Your task to perform on an android device: toggle notifications settings in the gmail app Image 0: 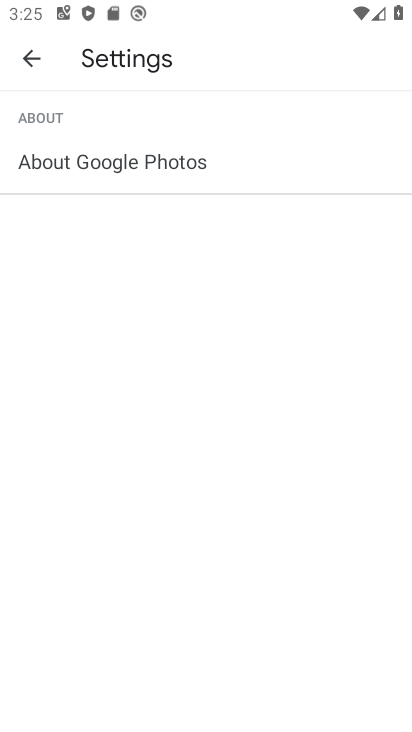
Step 0: press home button
Your task to perform on an android device: toggle notifications settings in the gmail app Image 1: 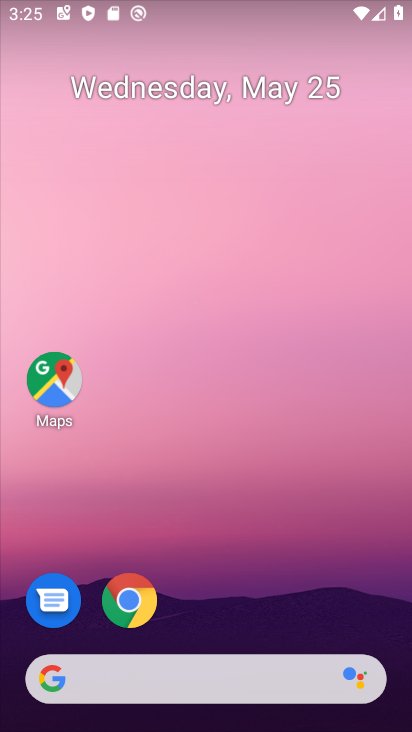
Step 1: drag from (27, 616) to (253, 192)
Your task to perform on an android device: toggle notifications settings in the gmail app Image 2: 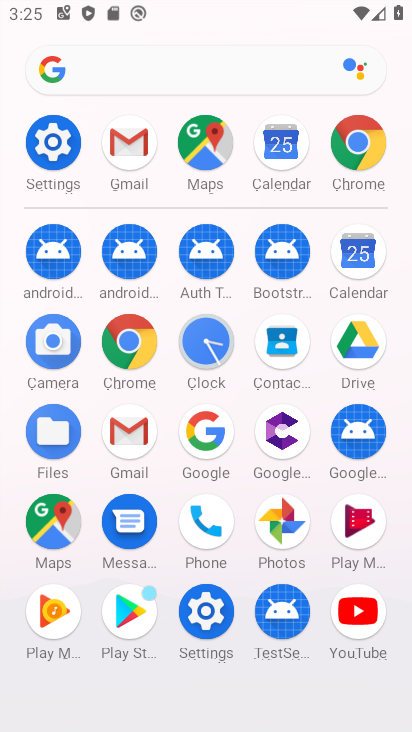
Step 2: click (129, 143)
Your task to perform on an android device: toggle notifications settings in the gmail app Image 3: 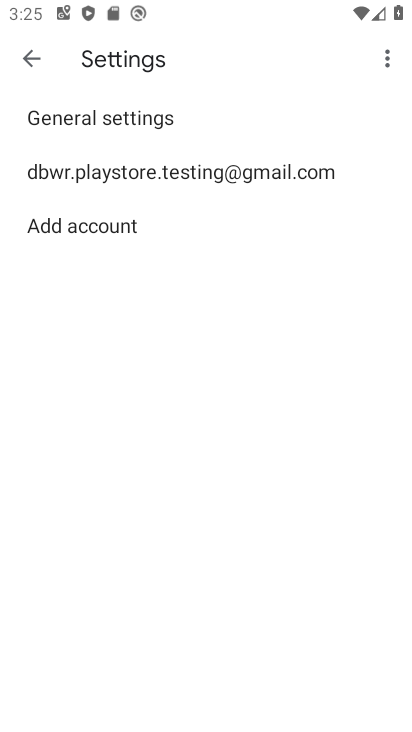
Step 3: click (127, 170)
Your task to perform on an android device: toggle notifications settings in the gmail app Image 4: 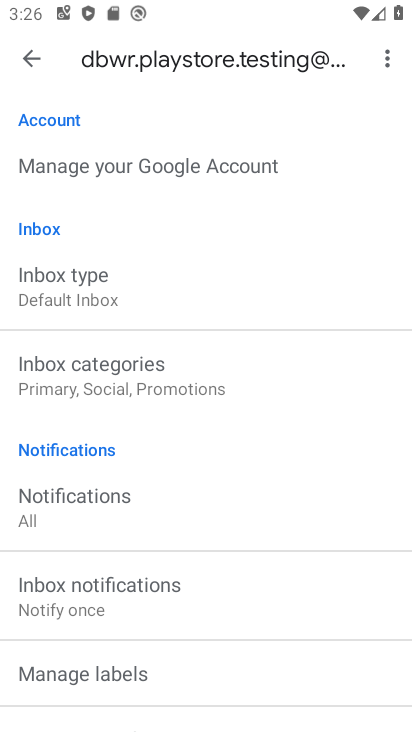
Step 4: drag from (5, 629) to (208, 213)
Your task to perform on an android device: toggle notifications settings in the gmail app Image 5: 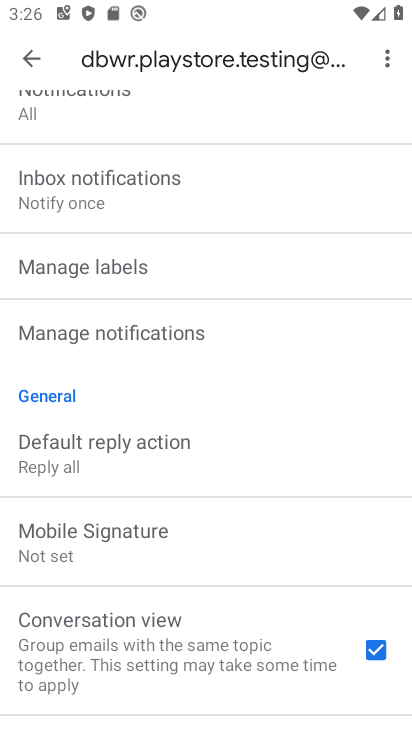
Step 5: click (108, 333)
Your task to perform on an android device: toggle notifications settings in the gmail app Image 6: 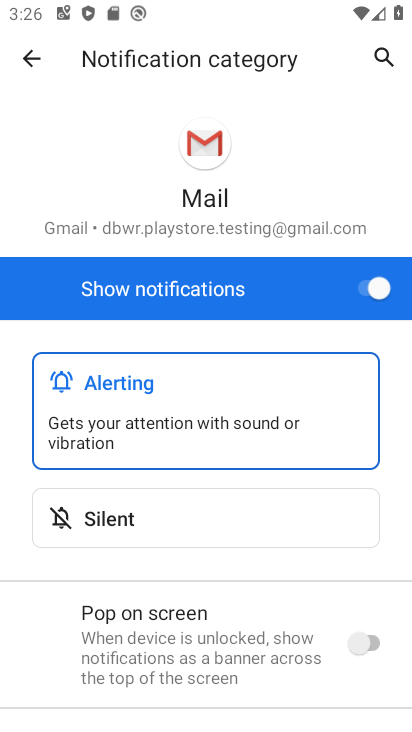
Step 6: click (382, 288)
Your task to perform on an android device: toggle notifications settings in the gmail app Image 7: 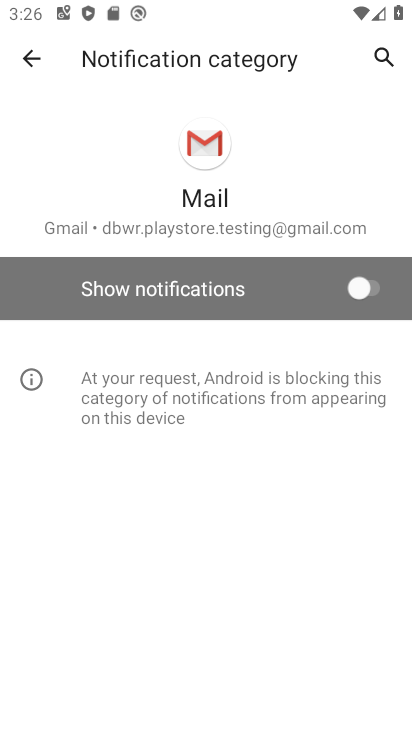
Step 7: task complete